Your task to perform on an android device: Open settings Image 0: 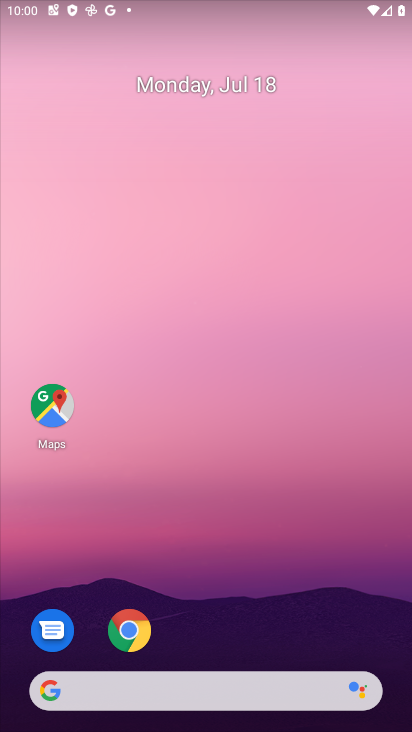
Step 0: drag from (361, 639) to (176, 37)
Your task to perform on an android device: Open settings Image 1: 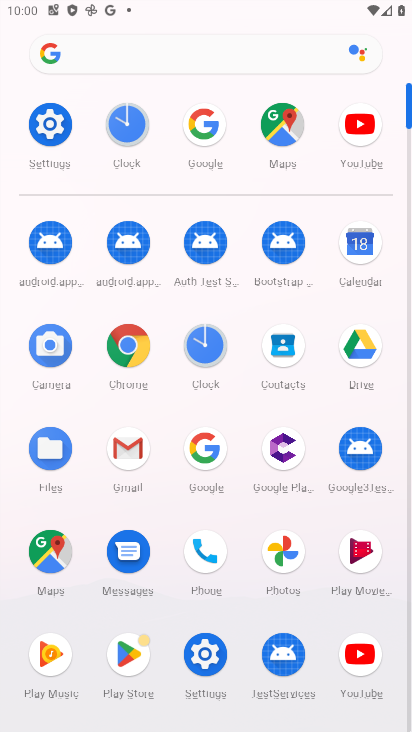
Step 1: click (195, 660)
Your task to perform on an android device: Open settings Image 2: 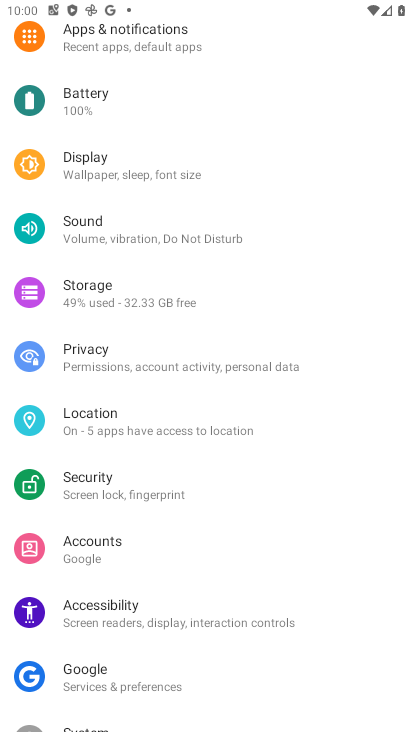
Step 2: task complete